Your task to perform on an android device: Open the calendar app, open the side menu, and click the "Day" option Image 0: 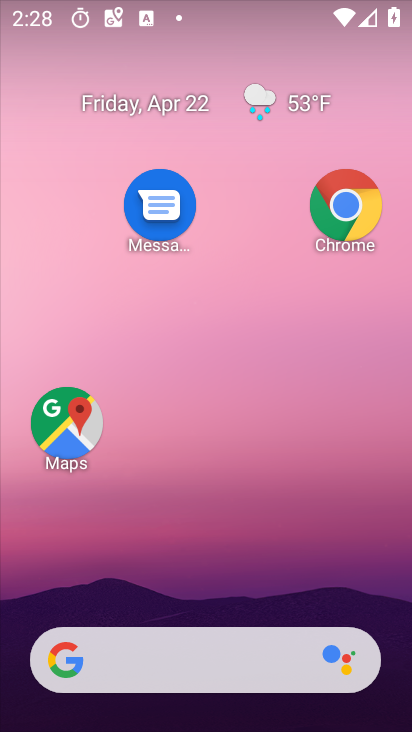
Step 0: drag from (217, 622) to (227, 173)
Your task to perform on an android device: Open the calendar app, open the side menu, and click the "Day" option Image 1: 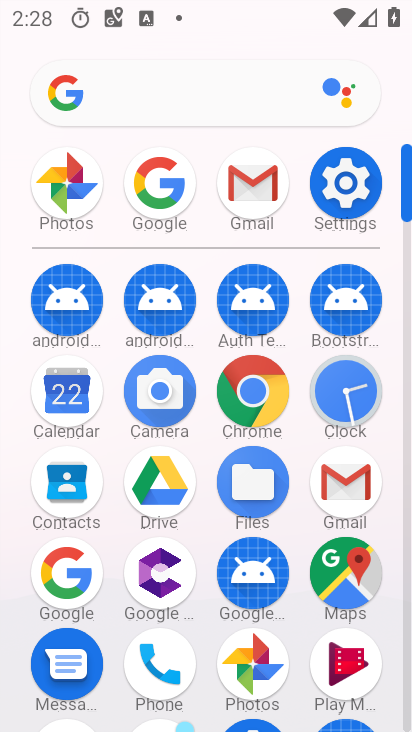
Step 1: click (76, 404)
Your task to perform on an android device: Open the calendar app, open the side menu, and click the "Day" option Image 2: 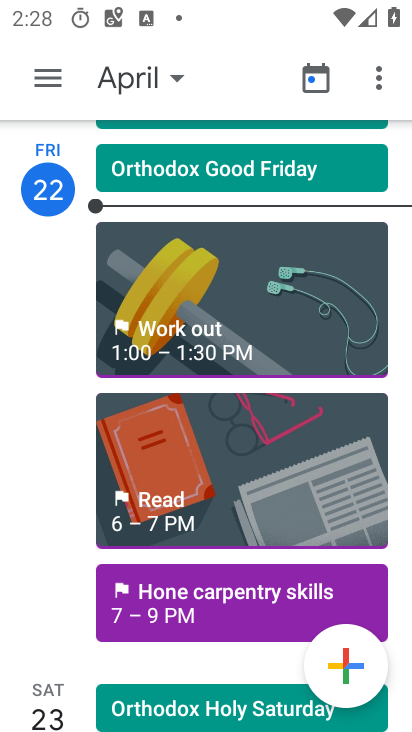
Step 2: click (49, 82)
Your task to perform on an android device: Open the calendar app, open the side menu, and click the "Day" option Image 3: 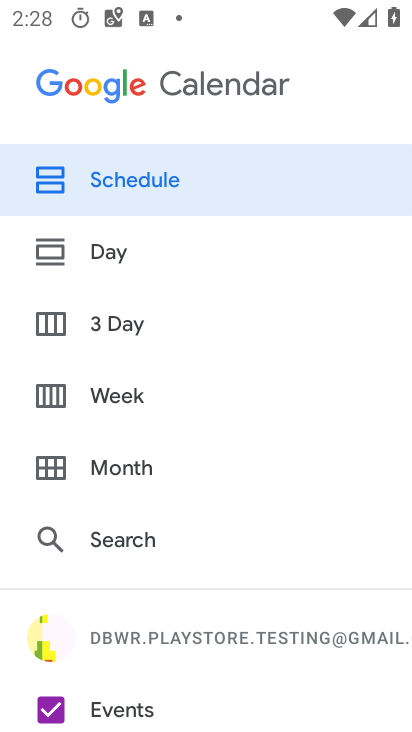
Step 3: click (115, 251)
Your task to perform on an android device: Open the calendar app, open the side menu, and click the "Day" option Image 4: 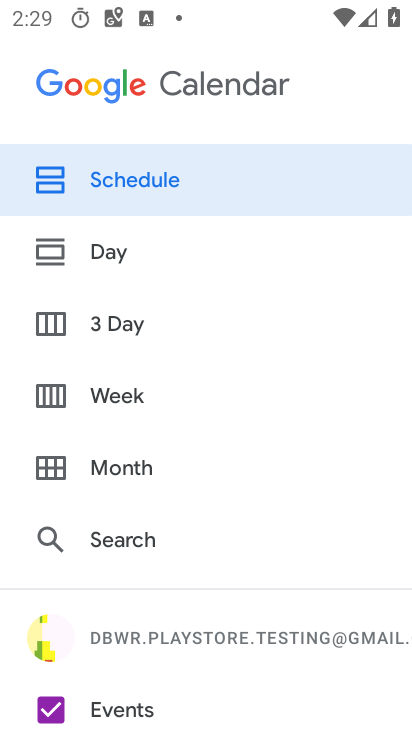
Step 4: click (96, 264)
Your task to perform on an android device: Open the calendar app, open the side menu, and click the "Day" option Image 5: 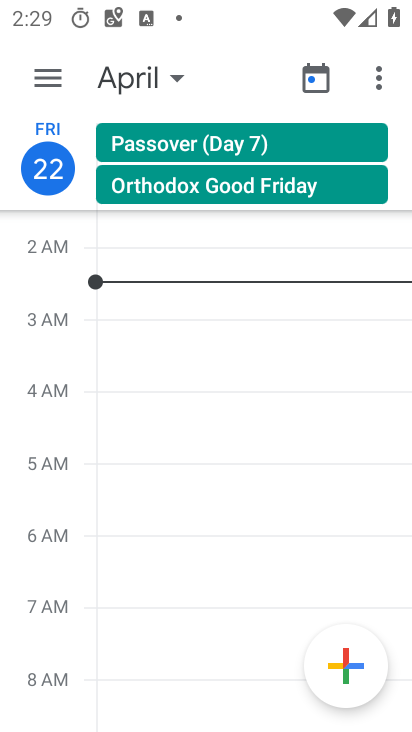
Step 5: task complete